Your task to perform on an android device: snooze an email in the gmail app Image 0: 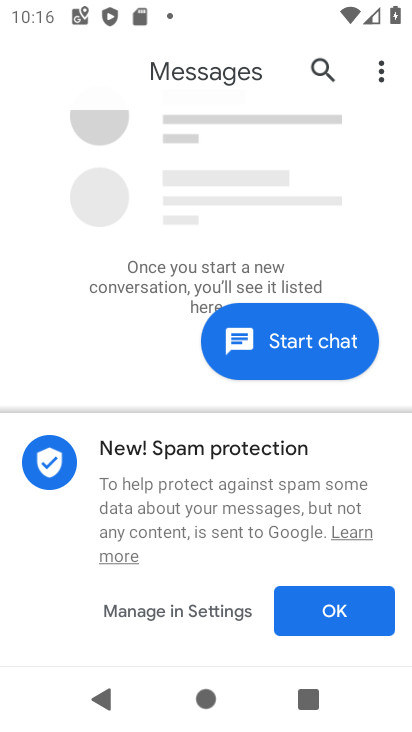
Step 0: press back button
Your task to perform on an android device: snooze an email in the gmail app Image 1: 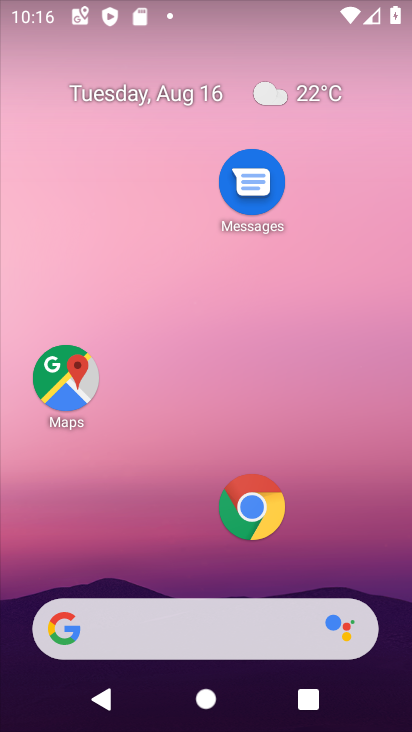
Step 1: drag from (152, 549) to (248, 6)
Your task to perform on an android device: snooze an email in the gmail app Image 2: 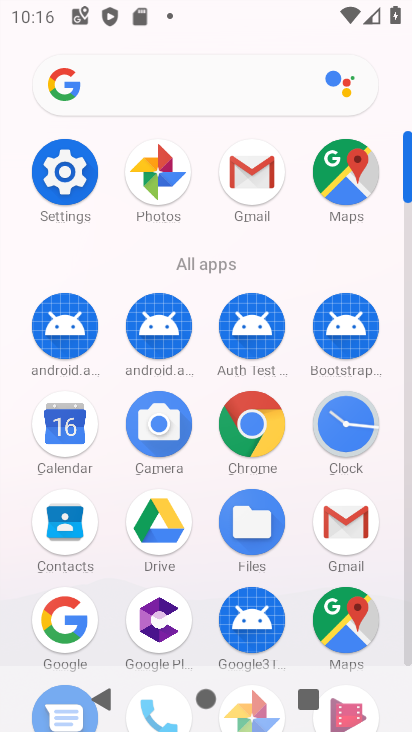
Step 2: click (235, 168)
Your task to perform on an android device: snooze an email in the gmail app Image 3: 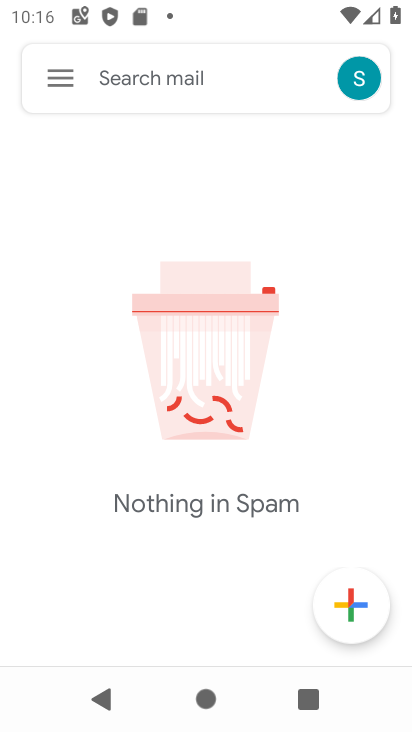
Step 3: click (61, 68)
Your task to perform on an android device: snooze an email in the gmail app Image 4: 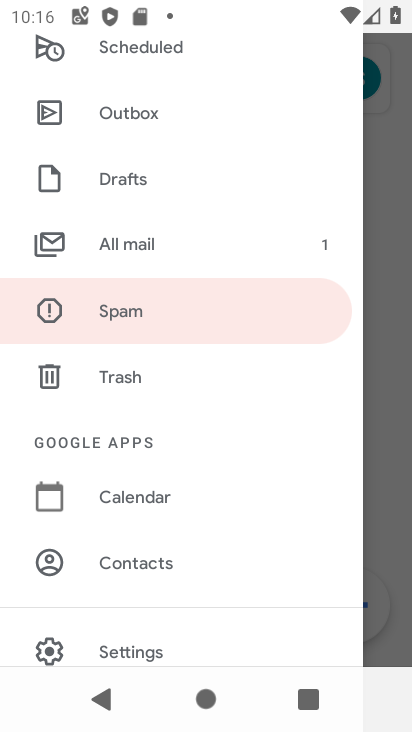
Step 4: click (132, 241)
Your task to perform on an android device: snooze an email in the gmail app Image 5: 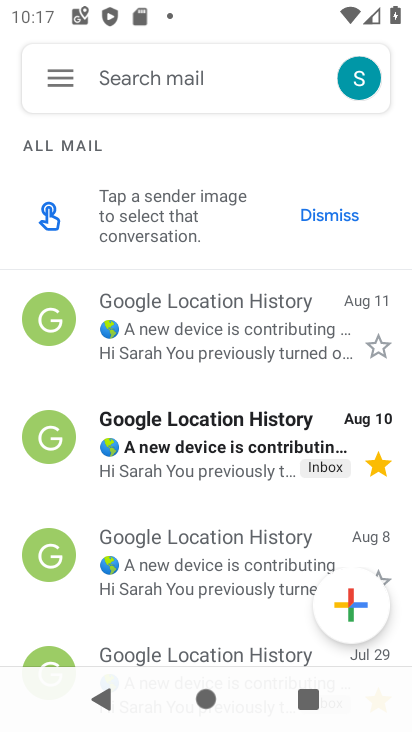
Step 5: click (196, 320)
Your task to perform on an android device: snooze an email in the gmail app Image 6: 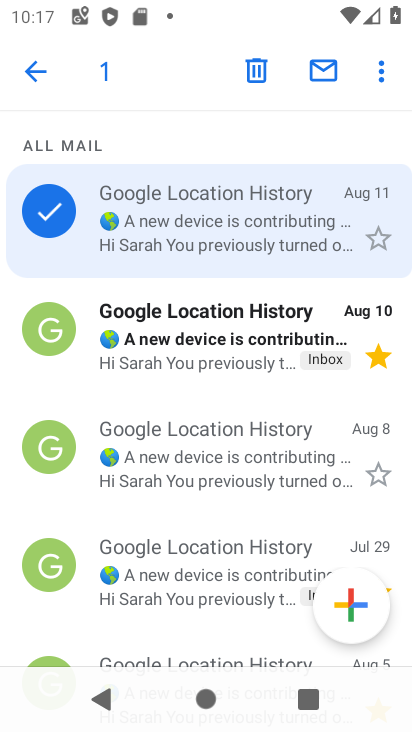
Step 6: click (378, 66)
Your task to perform on an android device: snooze an email in the gmail app Image 7: 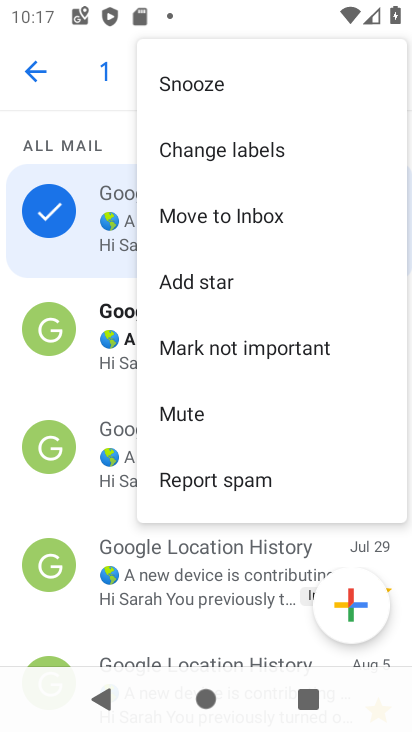
Step 7: click (199, 88)
Your task to perform on an android device: snooze an email in the gmail app Image 8: 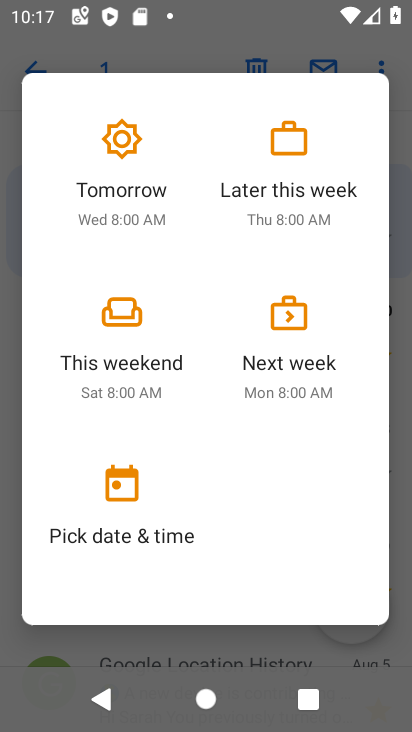
Step 8: click (105, 190)
Your task to perform on an android device: snooze an email in the gmail app Image 9: 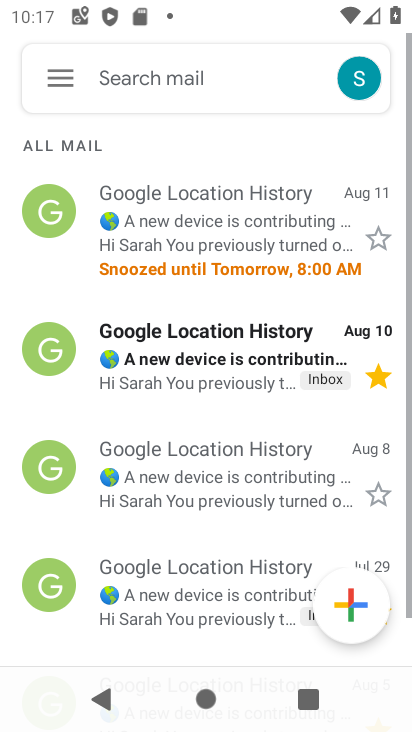
Step 9: task complete